Your task to perform on an android device: When is my next meeting? Image 0: 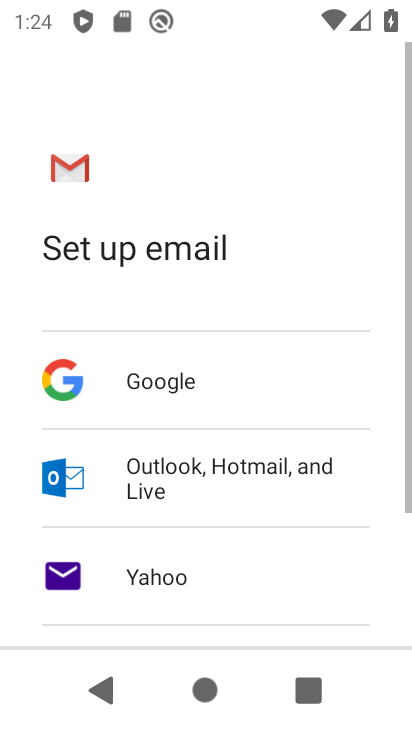
Step 0: press home button
Your task to perform on an android device: When is my next meeting? Image 1: 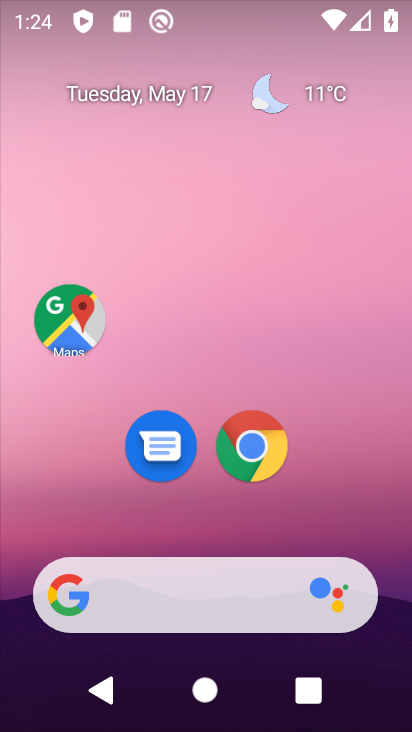
Step 1: drag from (204, 386) to (168, 2)
Your task to perform on an android device: When is my next meeting? Image 2: 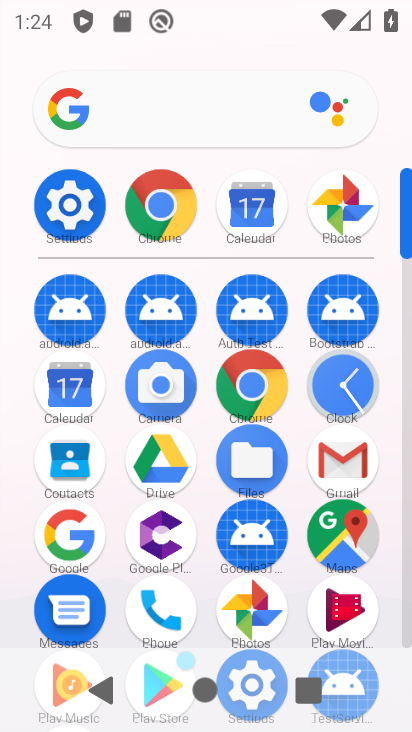
Step 2: click (76, 397)
Your task to perform on an android device: When is my next meeting? Image 3: 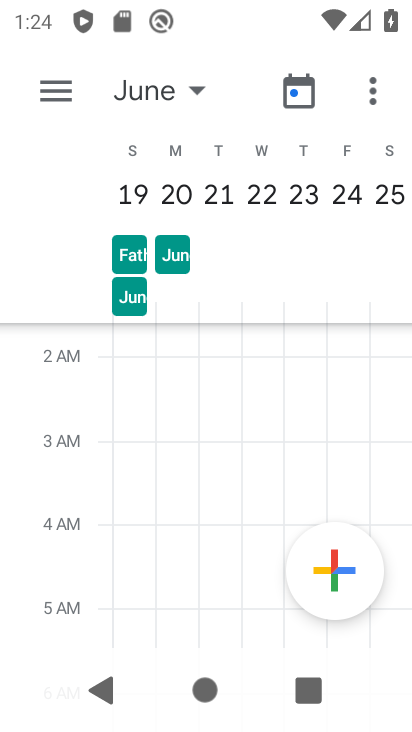
Step 3: click (59, 90)
Your task to perform on an android device: When is my next meeting? Image 4: 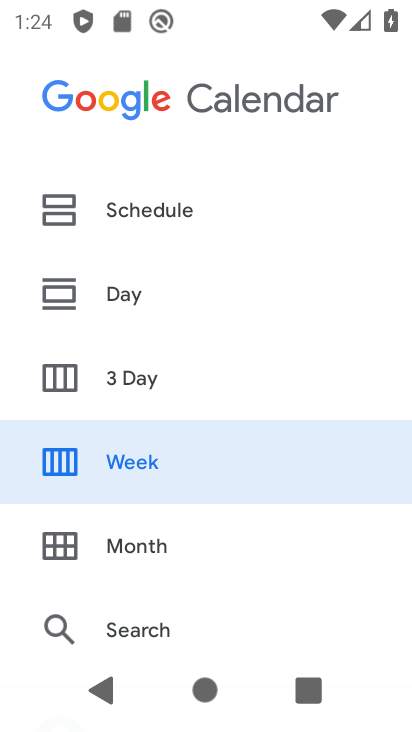
Step 4: click (153, 213)
Your task to perform on an android device: When is my next meeting? Image 5: 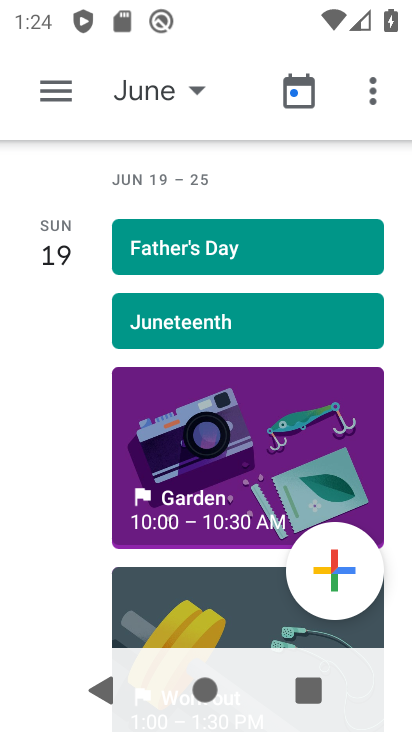
Step 5: click (137, 98)
Your task to perform on an android device: When is my next meeting? Image 6: 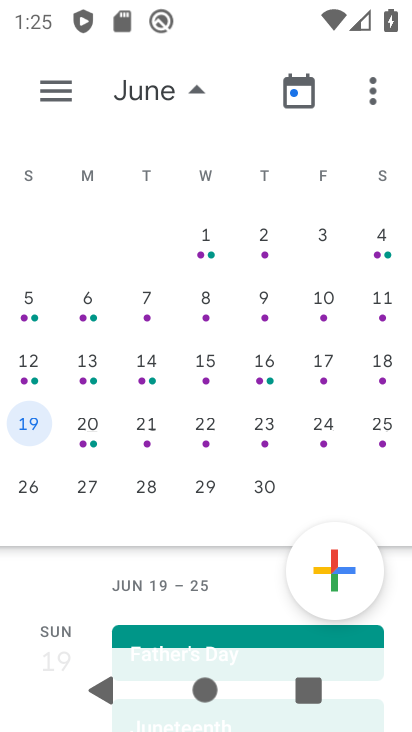
Step 6: drag from (28, 267) to (0, 359)
Your task to perform on an android device: When is my next meeting? Image 7: 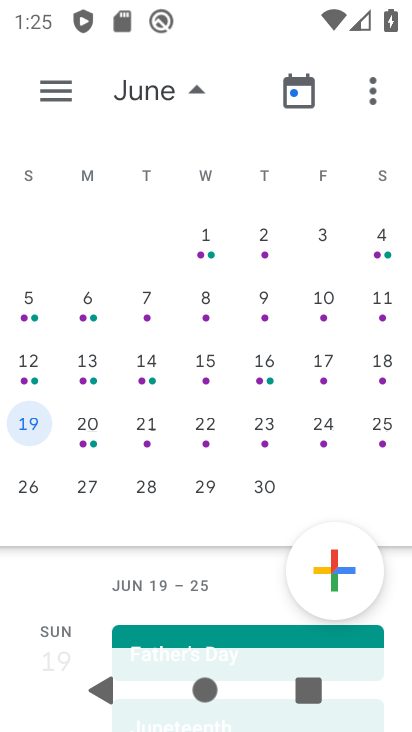
Step 7: drag from (87, 325) to (392, 381)
Your task to perform on an android device: When is my next meeting? Image 8: 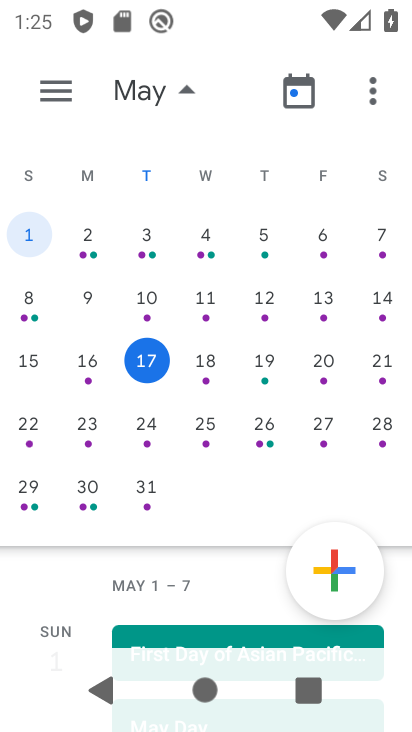
Step 8: click (142, 360)
Your task to perform on an android device: When is my next meeting? Image 9: 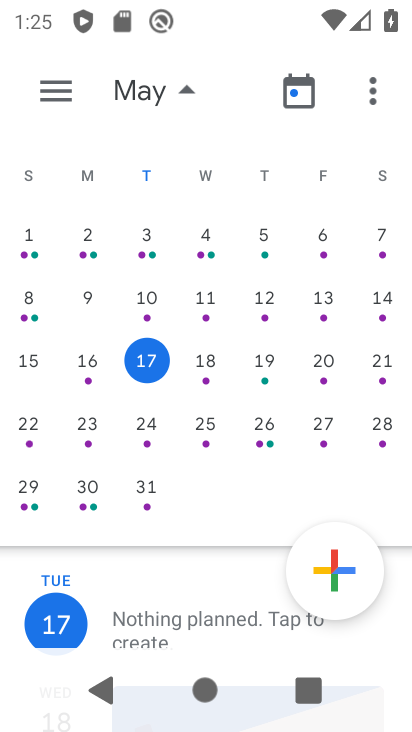
Step 9: task complete